Your task to perform on an android device: toggle javascript in the chrome app Image 0: 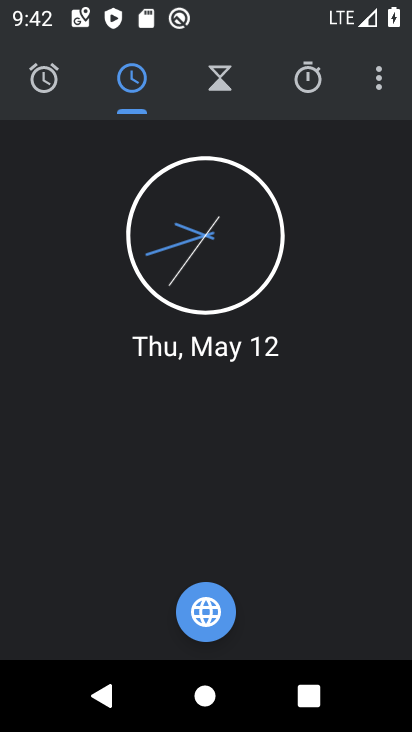
Step 0: press home button
Your task to perform on an android device: toggle javascript in the chrome app Image 1: 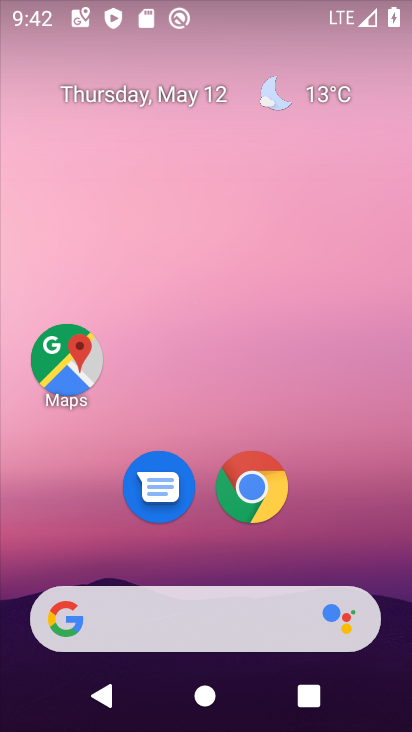
Step 1: click (254, 496)
Your task to perform on an android device: toggle javascript in the chrome app Image 2: 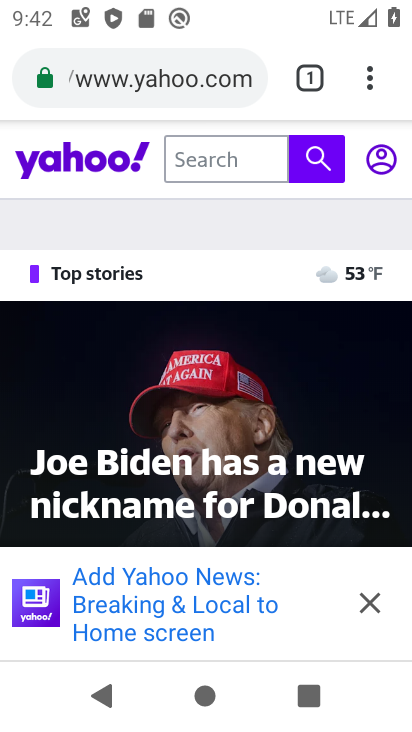
Step 2: click (373, 82)
Your task to perform on an android device: toggle javascript in the chrome app Image 3: 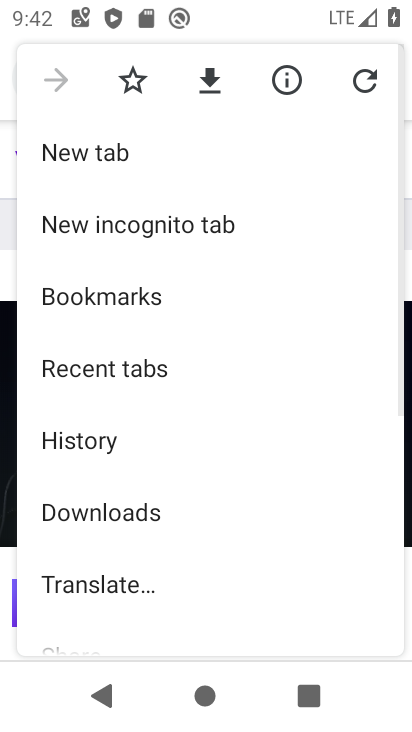
Step 3: drag from (204, 462) to (223, 160)
Your task to perform on an android device: toggle javascript in the chrome app Image 4: 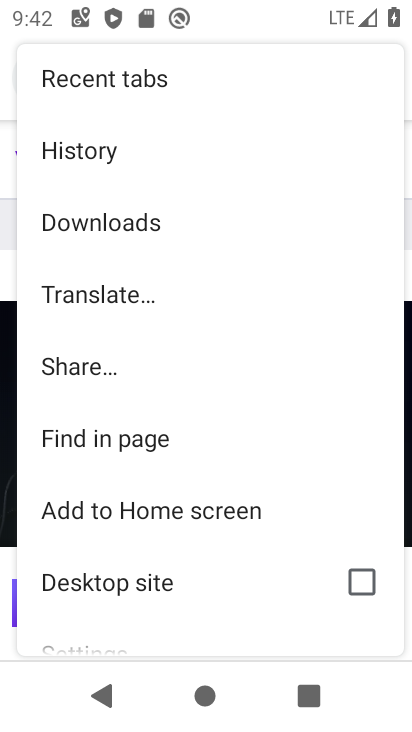
Step 4: drag from (189, 517) to (216, 183)
Your task to perform on an android device: toggle javascript in the chrome app Image 5: 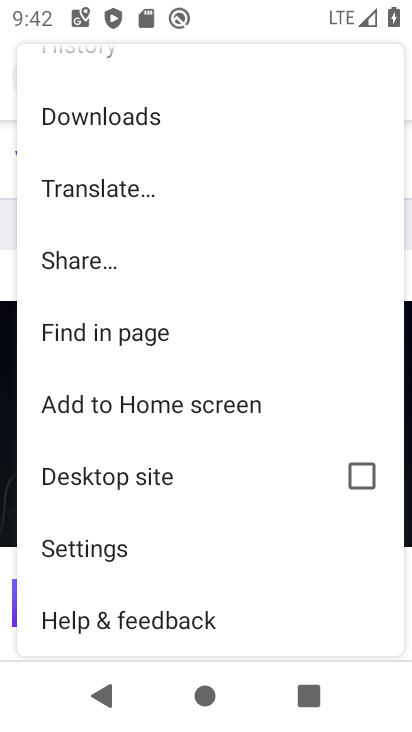
Step 5: click (96, 554)
Your task to perform on an android device: toggle javascript in the chrome app Image 6: 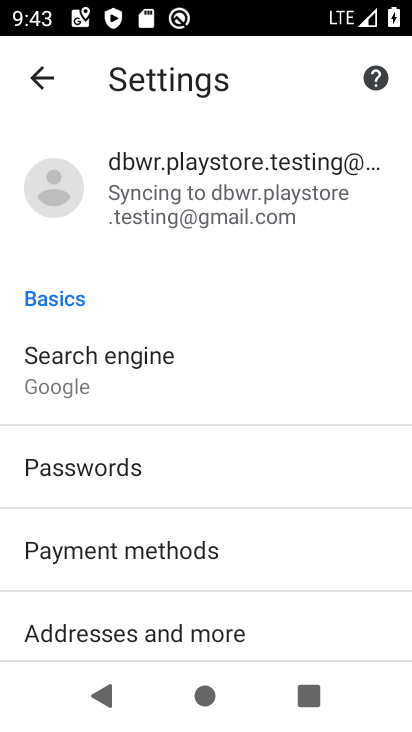
Step 6: drag from (200, 605) to (213, 176)
Your task to perform on an android device: toggle javascript in the chrome app Image 7: 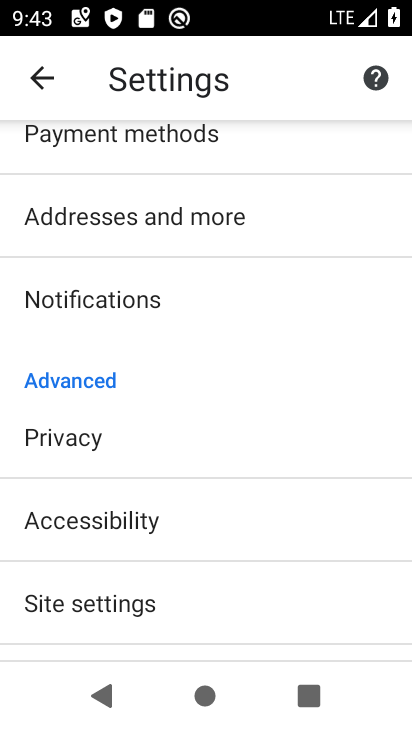
Step 7: click (115, 603)
Your task to perform on an android device: toggle javascript in the chrome app Image 8: 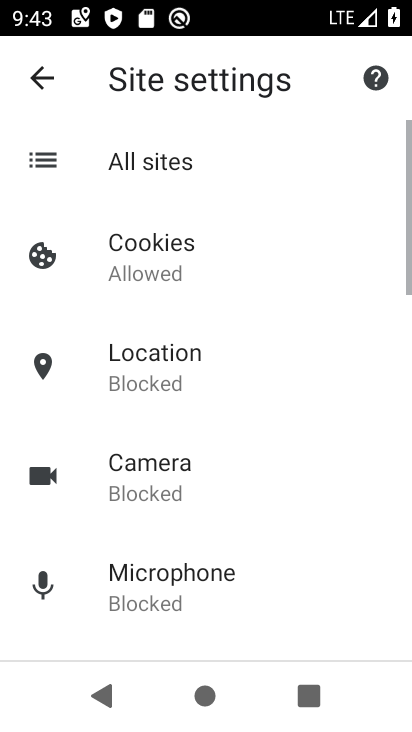
Step 8: drag from (238, 521) to (259, 221)
Your task to perform on an android device: toggle javascript in the chrome app Image 9: 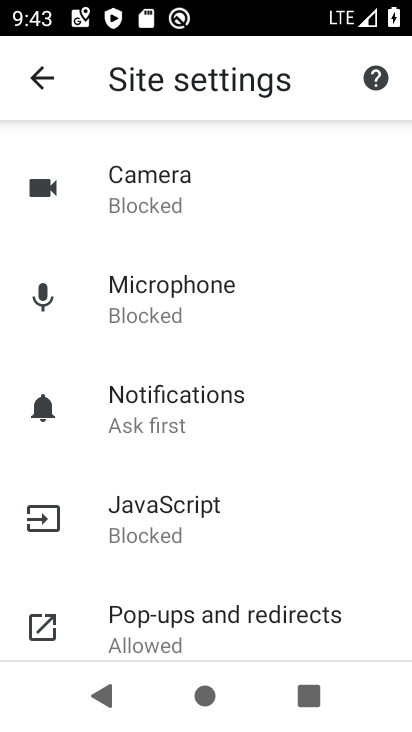
Step 9: click (151, 506)
Your task to perform on an android device: toggle javascript in the chrome app Image 10: 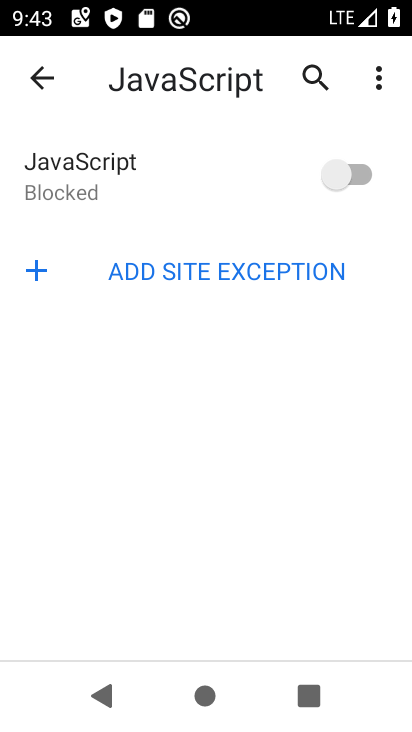
Step 10: click (330, 183)
Your task to perform on an android device: toggle javascript in the chrome app Image 11: 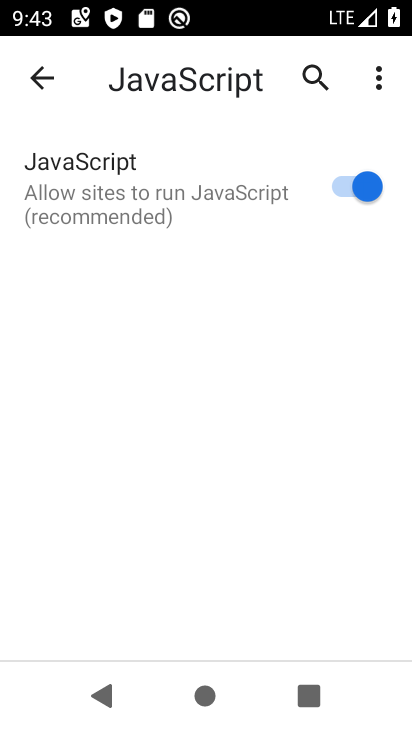
Step 11: task complete